Your task to perform on an android device: Do I have any events this weekend? Image 0: 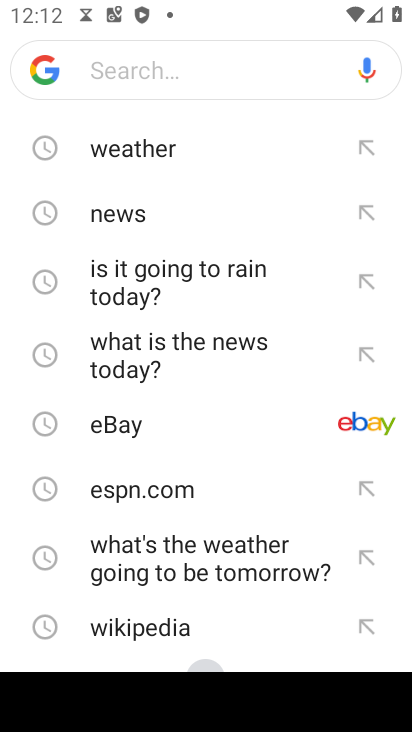
Step 0: press home button
Your task to perform on an android device: Do I have any events this weekend? Image 1: 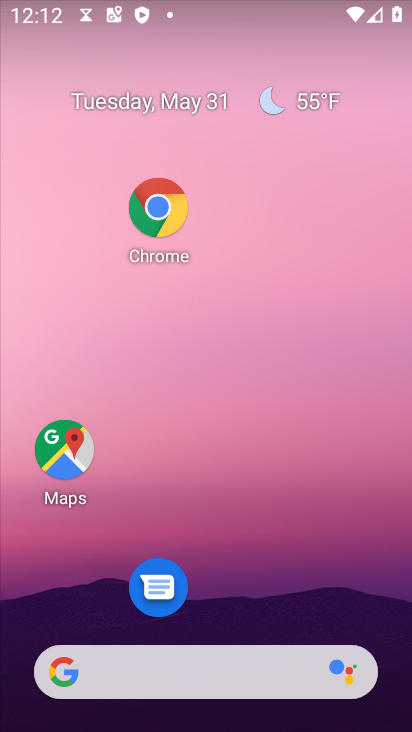
Step 1: drag from (222, 568) to (171, 98)
Your task to perform on an android device: Do I have any events this weekend? Image 2: 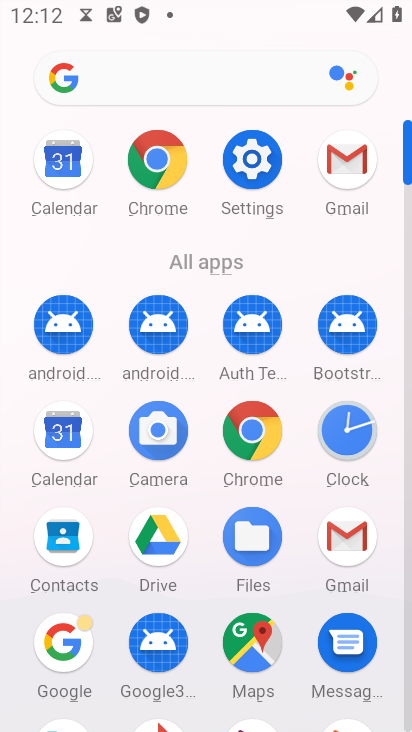
Step 2: click (74, 156)
Your task to perform on an android device: Do I have any events this weekend? Image 3: 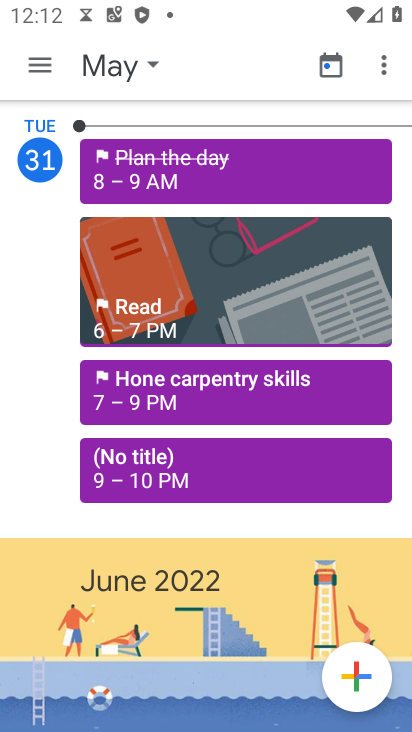
Step 3: click (117, 76)
Your task to perform on an android device: Do I have any events this weekend? Image 4: 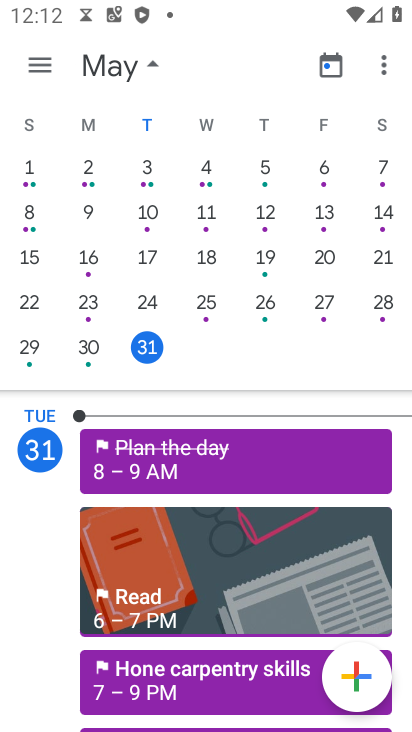
Step 4: task complete